Your task to perform on an android device: uninstall "Adobe Express: Graphic Design" Image 0: 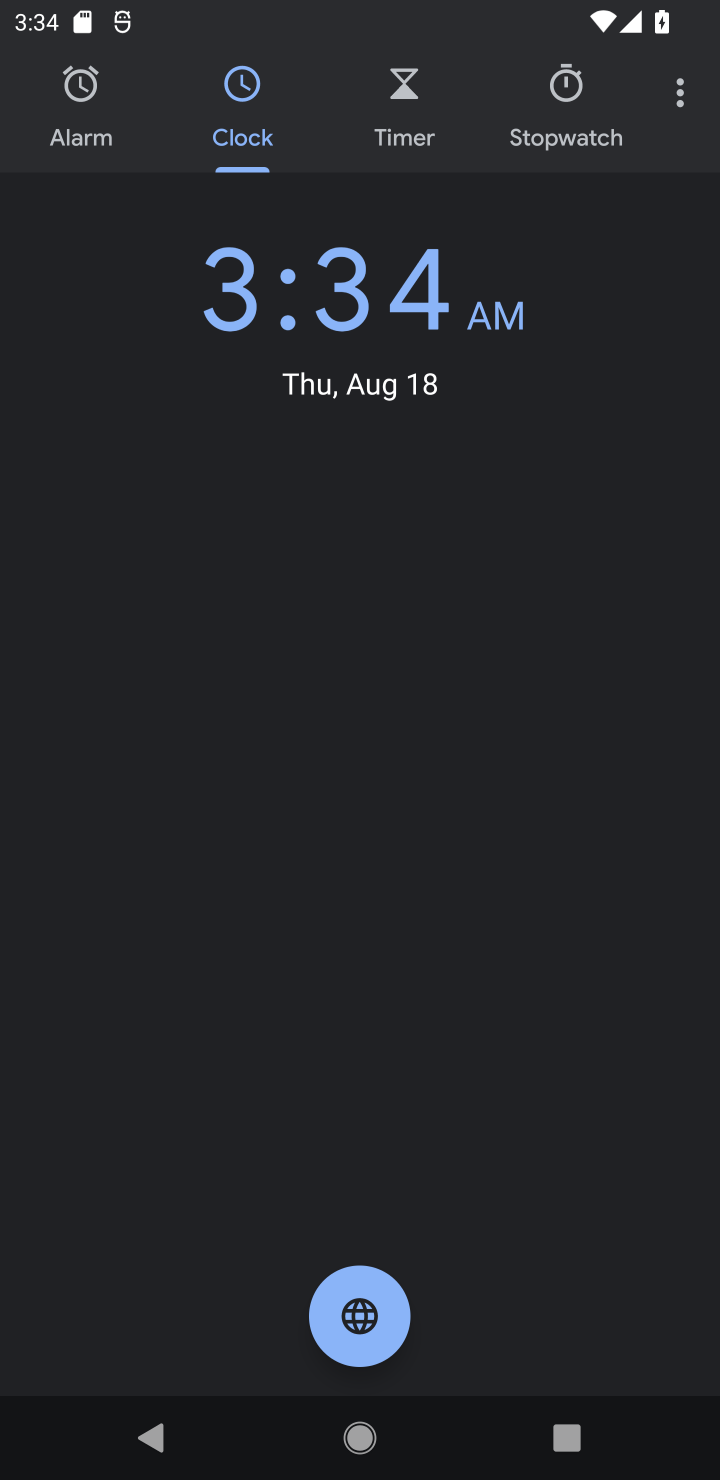
Step 0: press home button
Your task to perform on an android device: uninstall "Adobe Express: Graphic Design" Image 1: 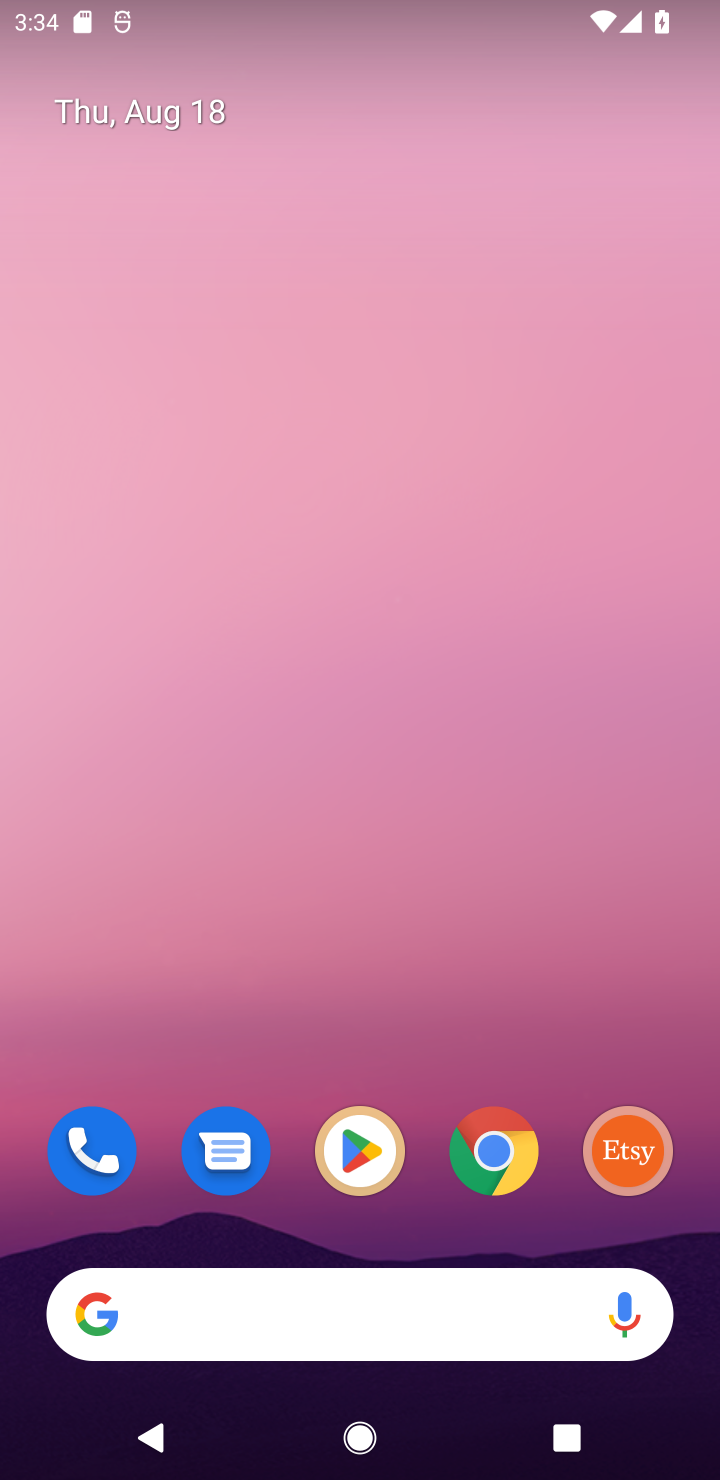
Step 1: drag from (276, 1255) to (395, 198)
Your task to perform on an android device: uninstall "Adobe Express: Graphic Design" Image 2: 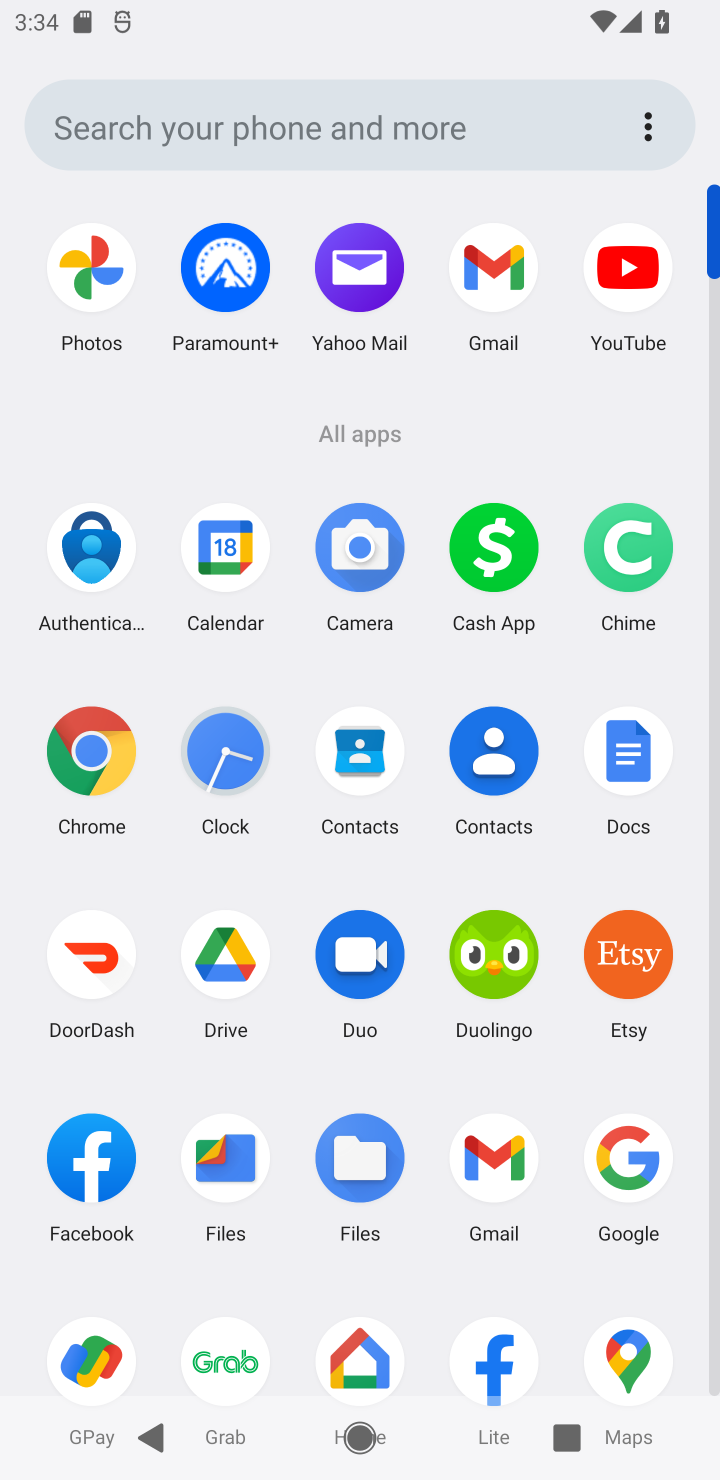
Step 2: drag from (430, 1357) to (405, 545)
Your task to perform on an android device: uninstall "Adobe Express: Graphic Design" Image 3: 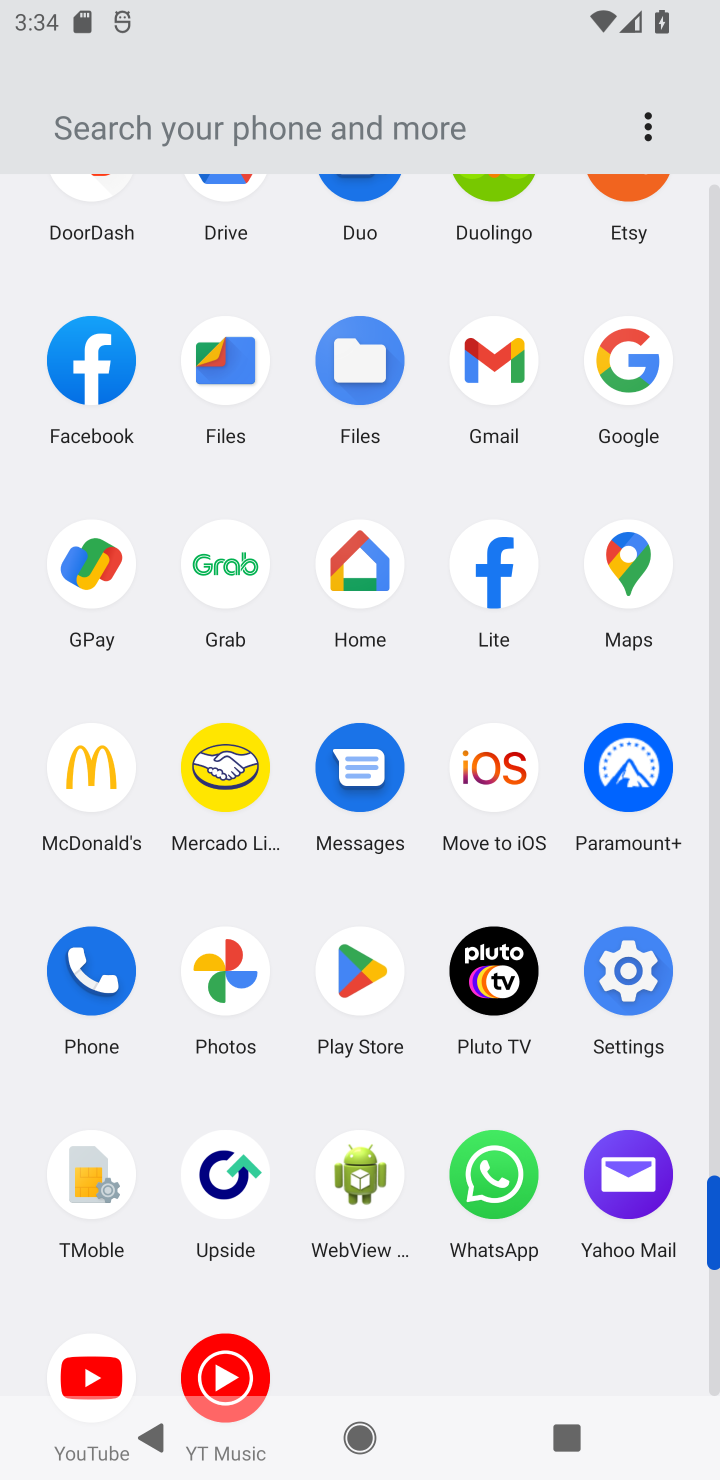
Step 3: click (373, 978)
Your task to perform on an android device: uninstall "Adobe Express: Graphic Design" Image 4: 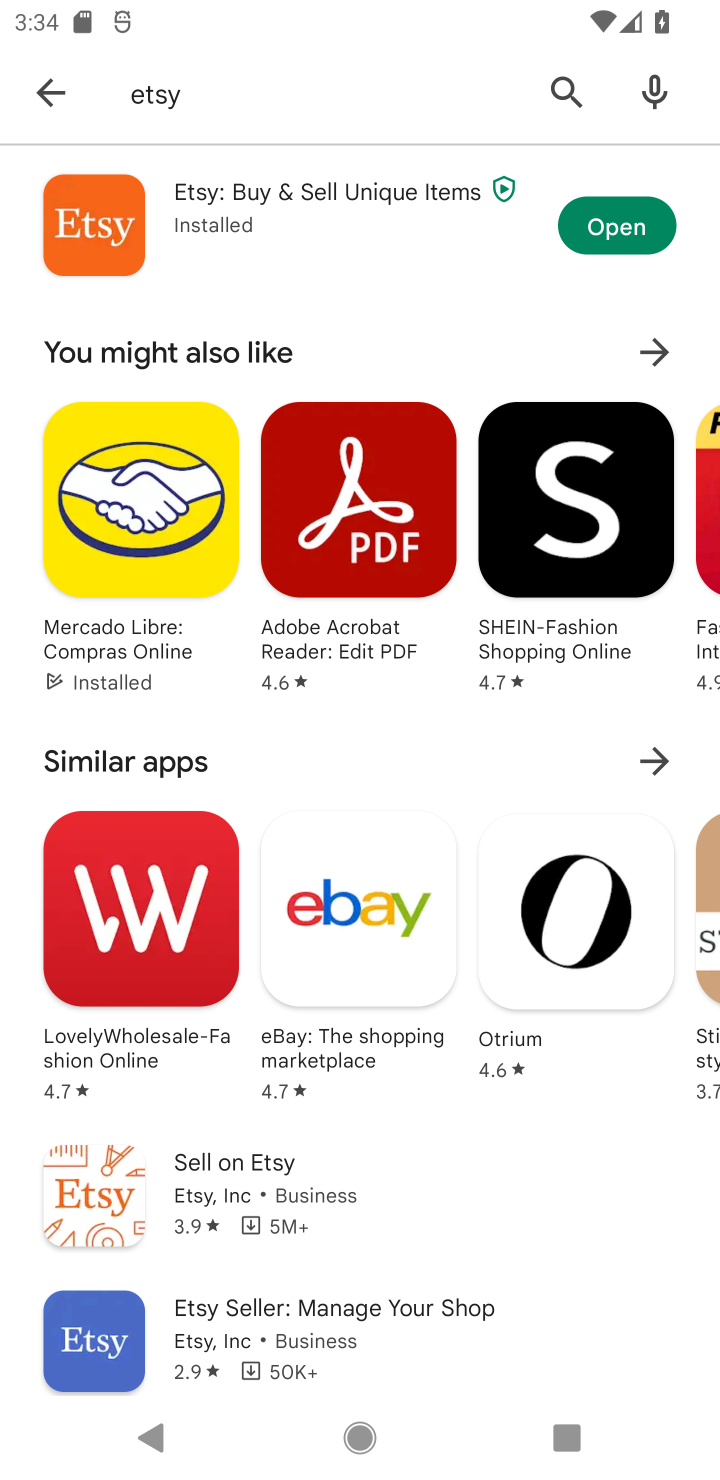
Step 4: click (564, 118)
Your task to perform on an android device: uninstall "Adobe Express: Graphic Design" Image 5: 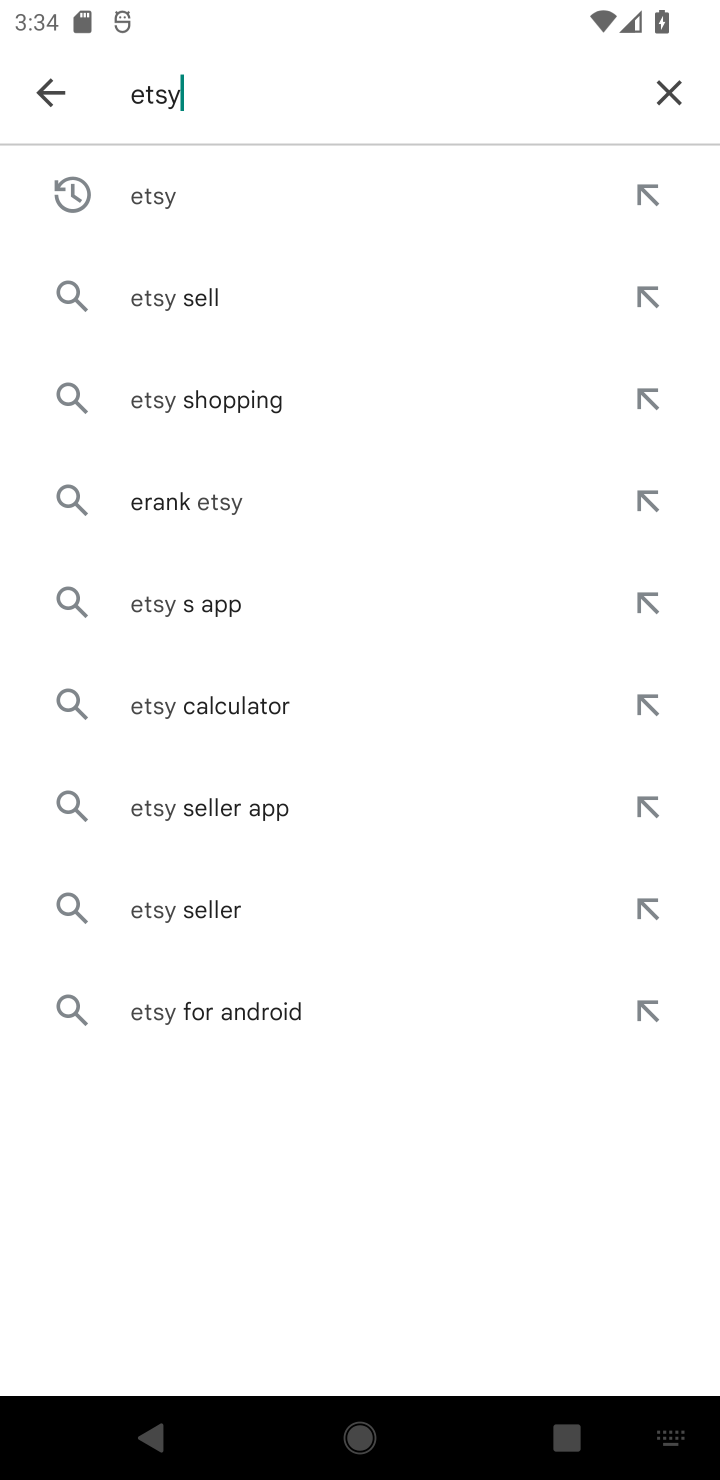
Step 5: click (680, 88)
Your task to perform on an android device: uninstall "Adobe Express: Graphic Design" Image 6: 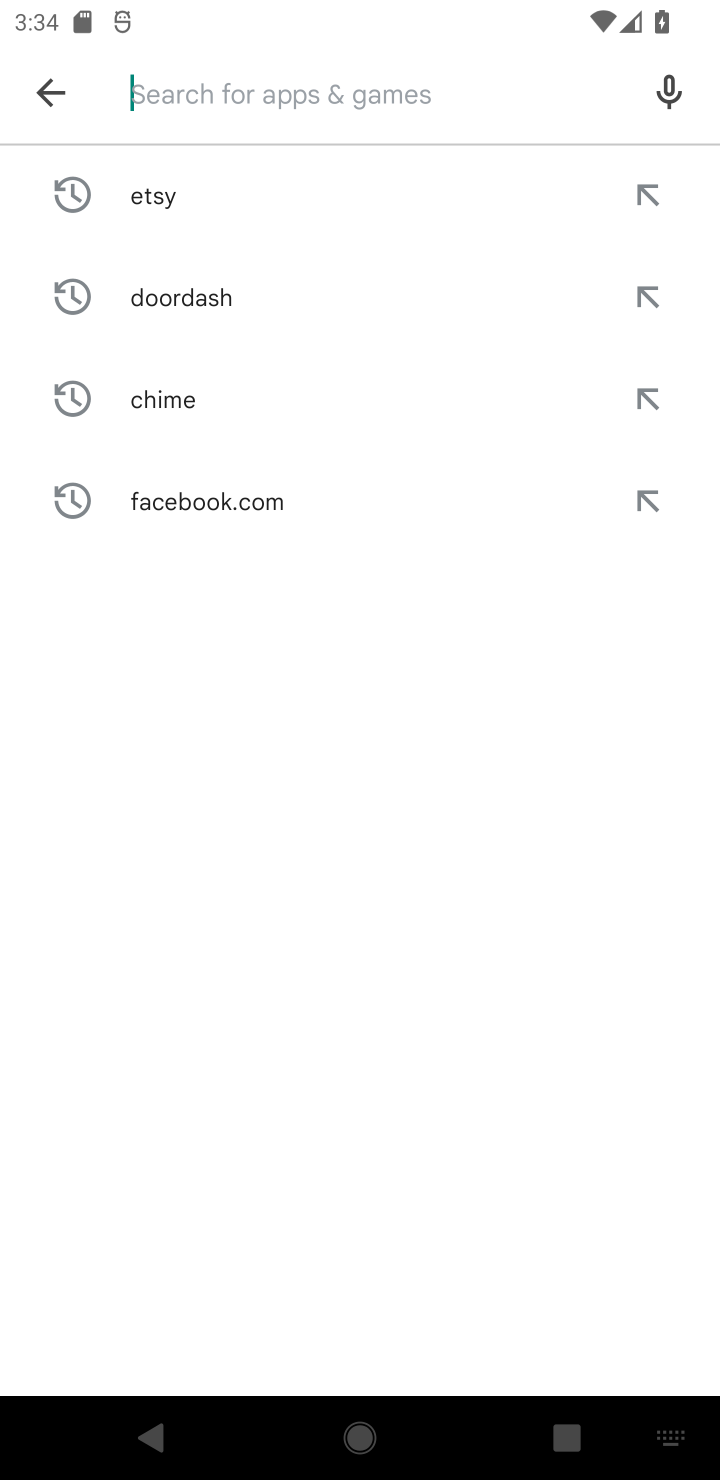
Step 6: type "adobe"
Your task to perform on an android device: uninstall "Adobe Express: Graphic Design" Image 7: 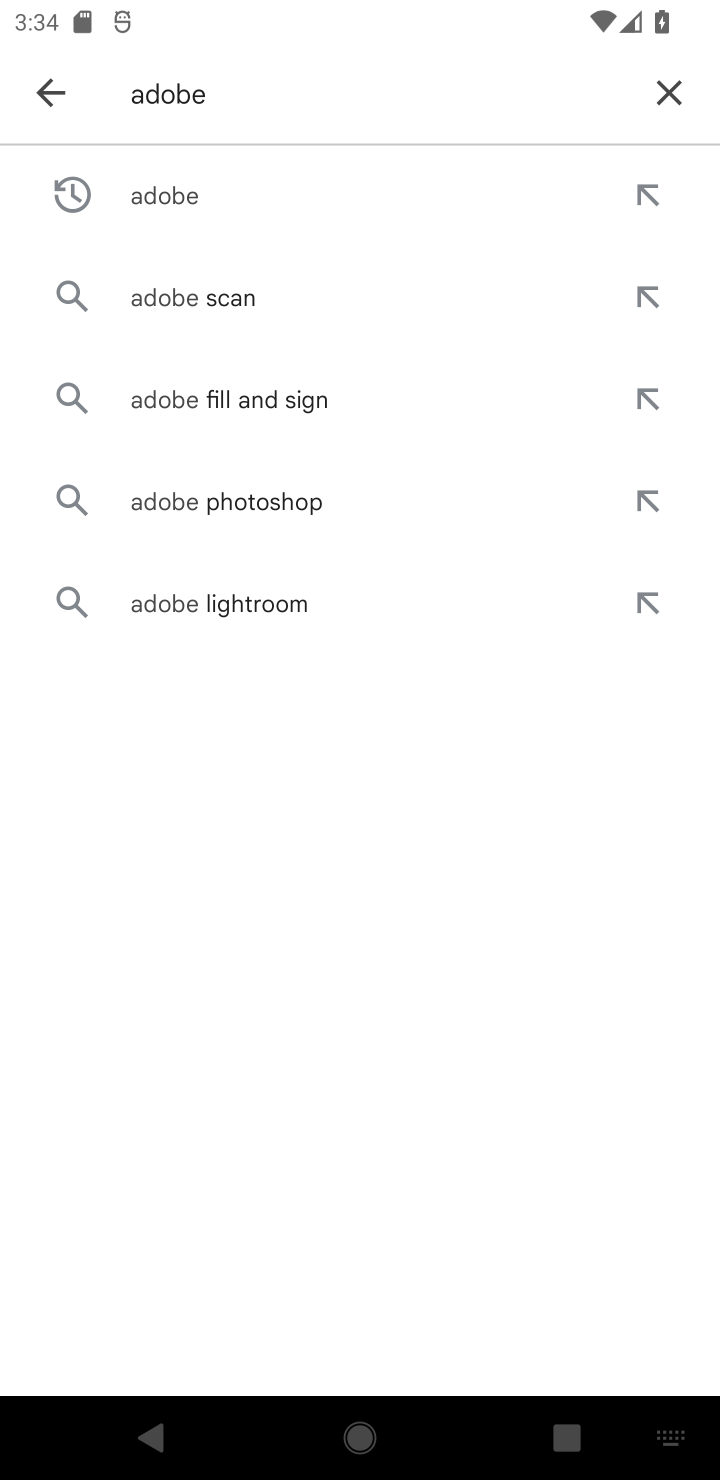
Step 7: type " "
Your task to perform on an android device: uninstall "Adobe Express: Graphic Design" Image 8: 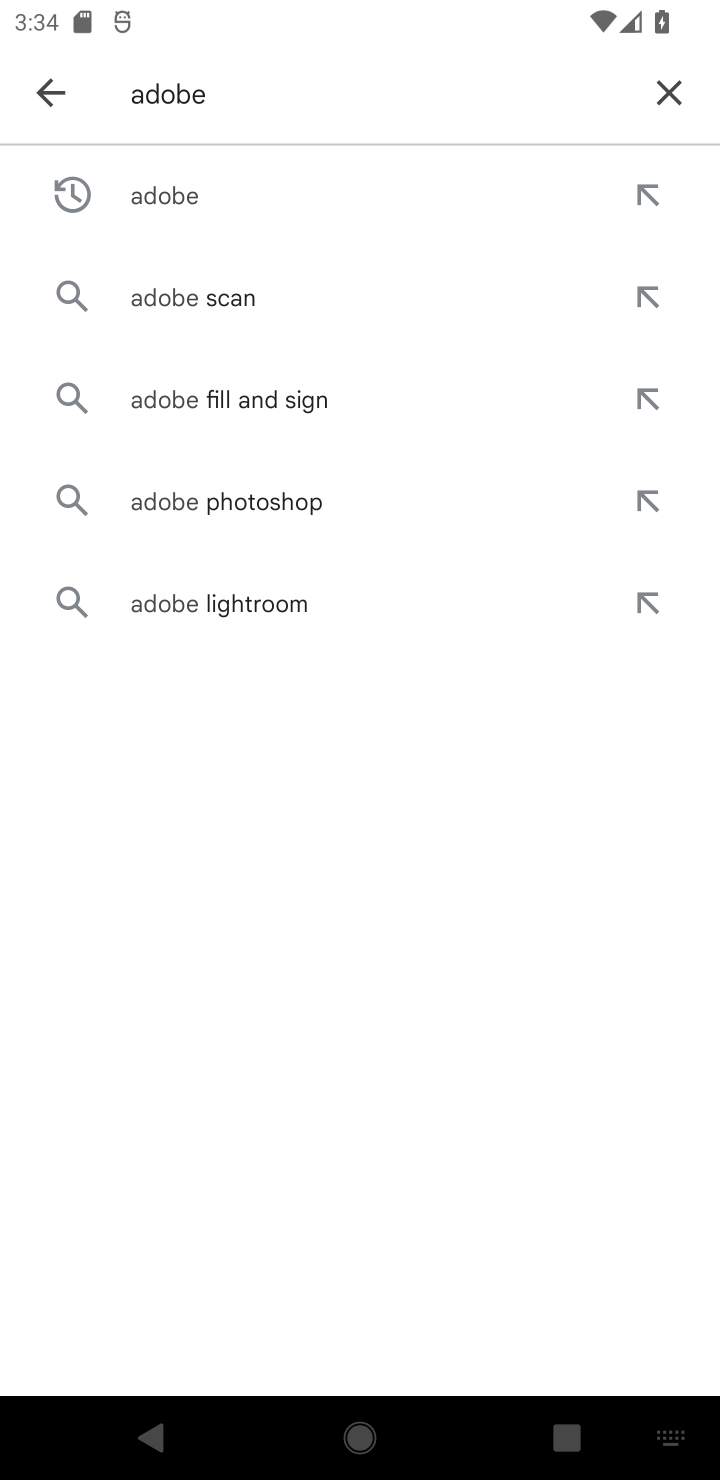
Step 8: click (258, 183)
Your task to perform on an android device: uninstall "Adobe Express: Graphic Design" Image 9: 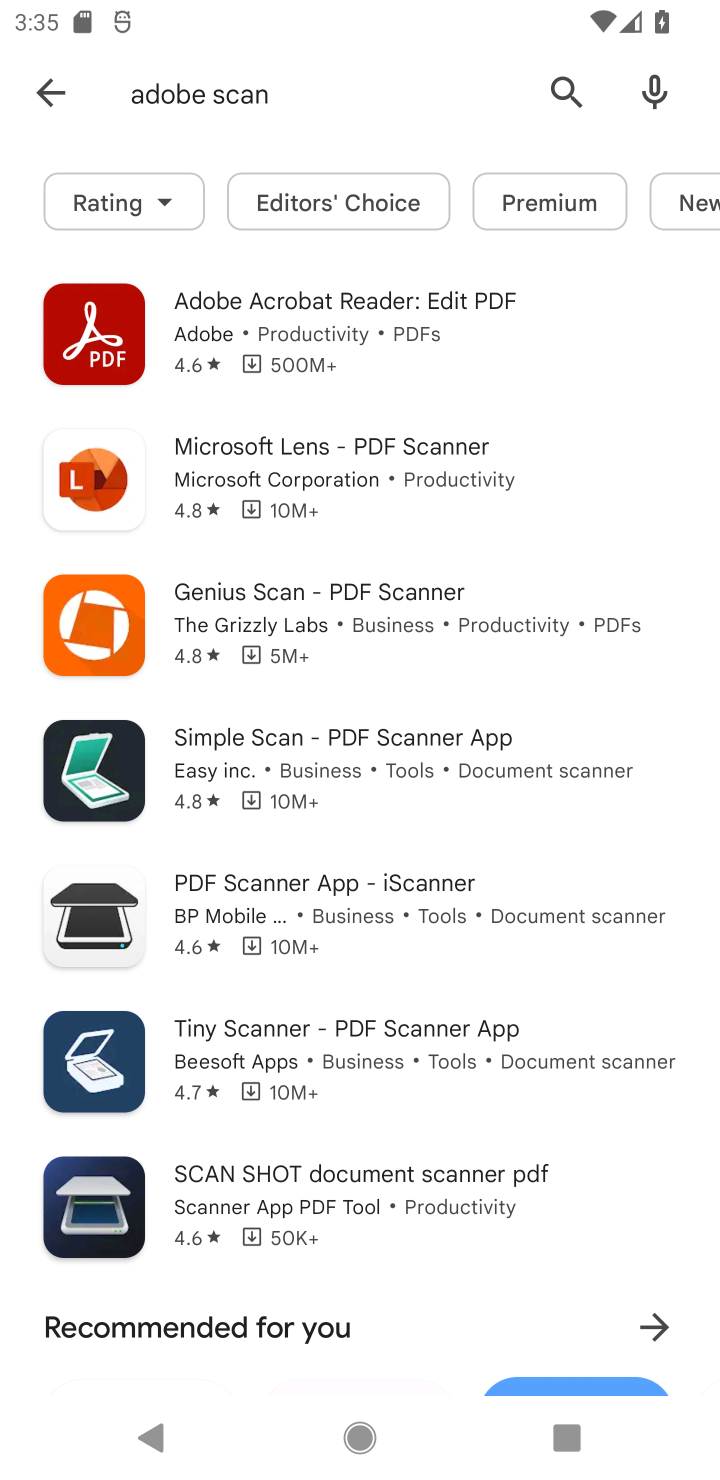
Step 9: click (277, 315)
Your task to perform on an android device: uninstall "Adobe Express: Graphic Design" Image 10: 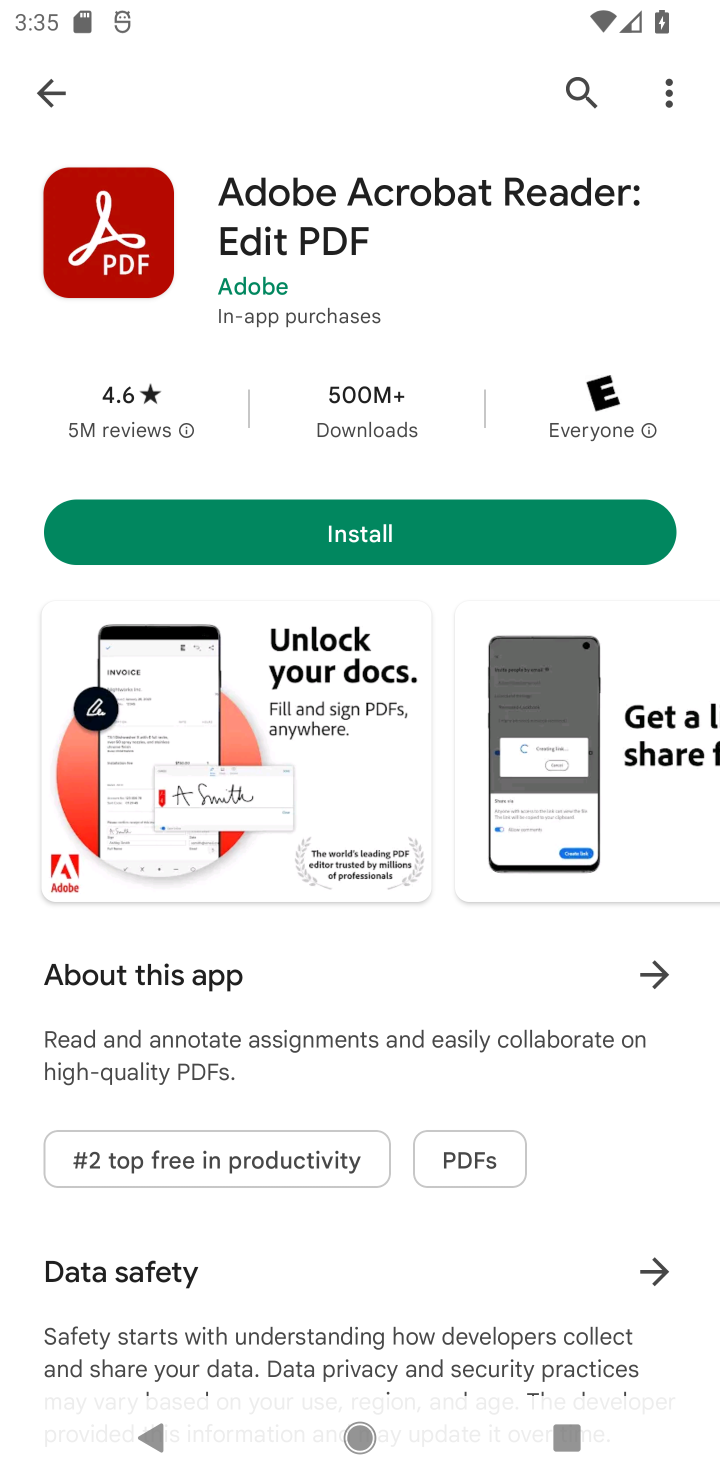
Step 10: click (378, 523)
Your task to perform on an android device: uninstall "Adobe Express: Graphic Design" Image 11: 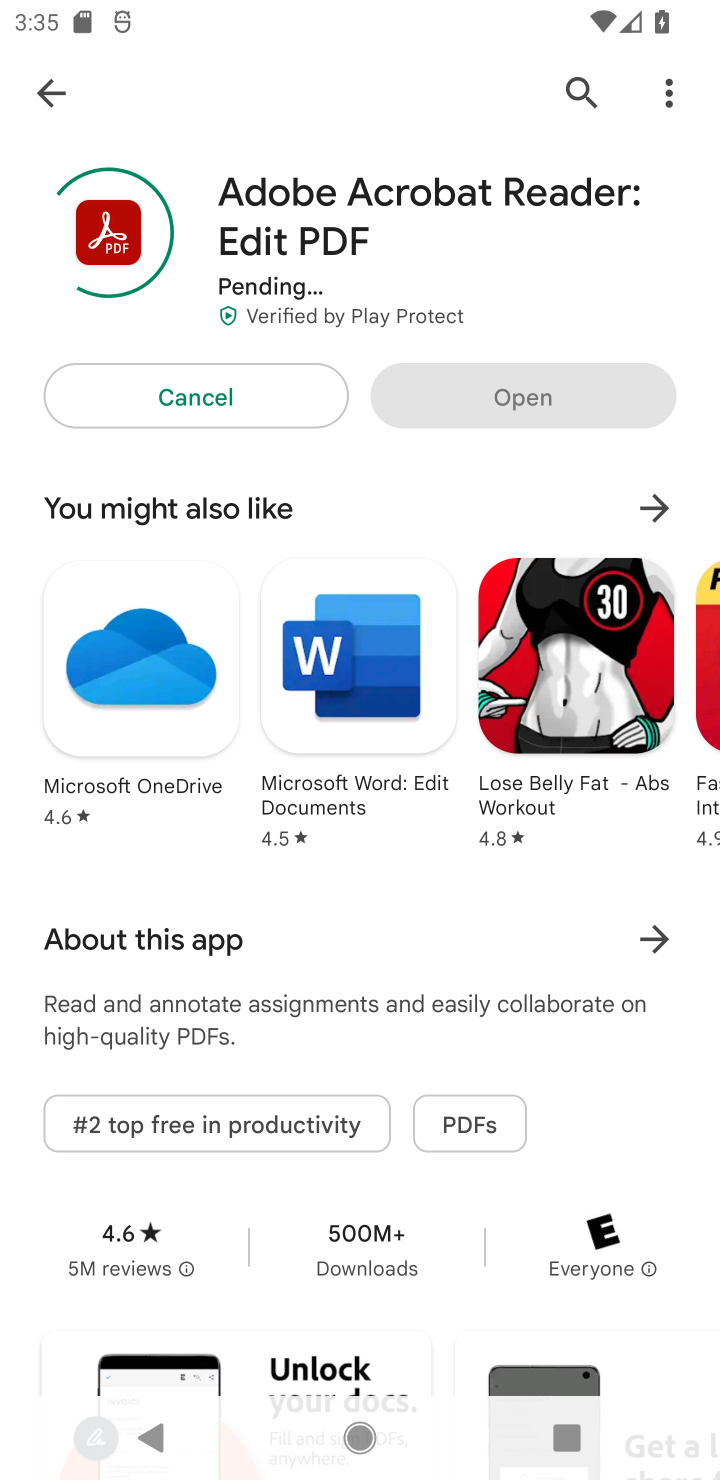
Step 11: task complete